Your task to perform on an android device: What's the weather going to be tomorrow? Image 0: 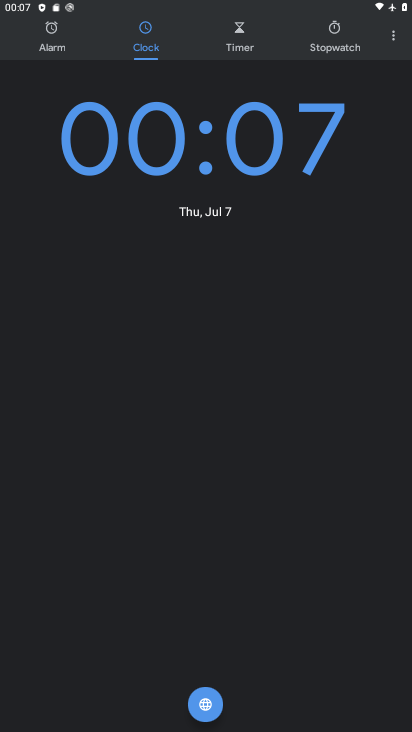
Step 0: drag from (249, 719) to (227, 193)
Your task to perform on an android device: What's the weather going to be tomorrow? Image 1: 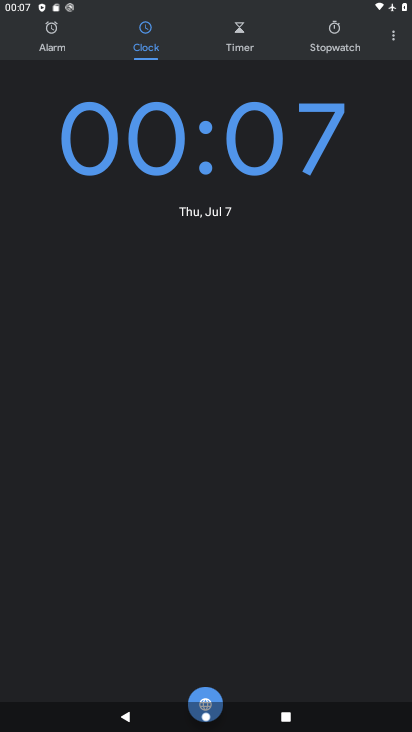
Step 1: press back button
Your task to perform on an android device: What's the weather going to be tomorrow? Image 2: 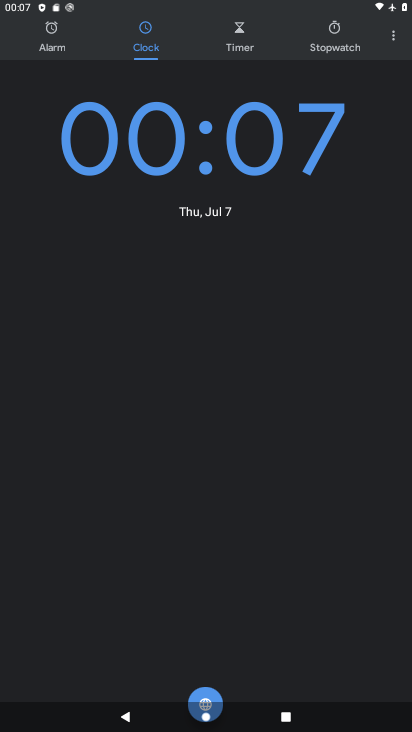
Step 2: press back button
Your task to perform on an android device: What's the weather going to be tomorrow? Image 3: 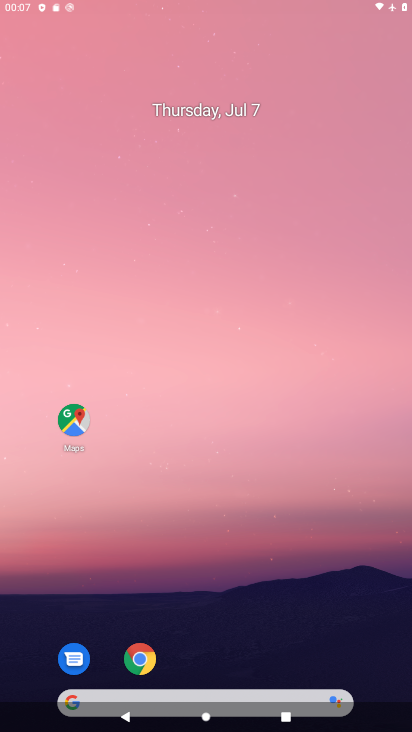
Step 3: press back button
Your task to perform on an android device: What's the weather going to be tomorrow? Image 4: 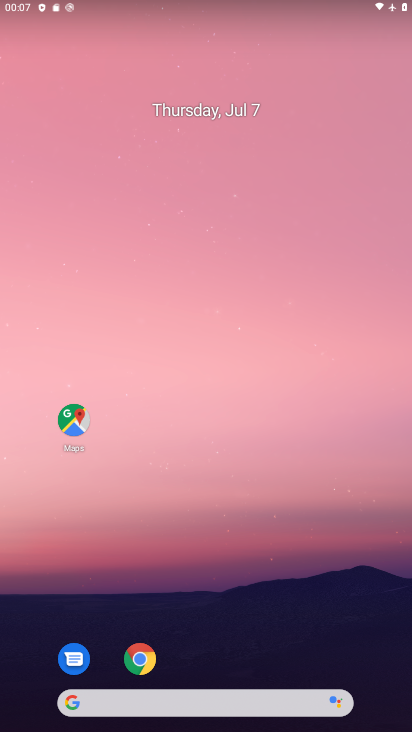
Step 4: drag from (354, 675) to (231, 198)
Your task to perform on an android device: What's the weather going to be tomorrow? Image 5: 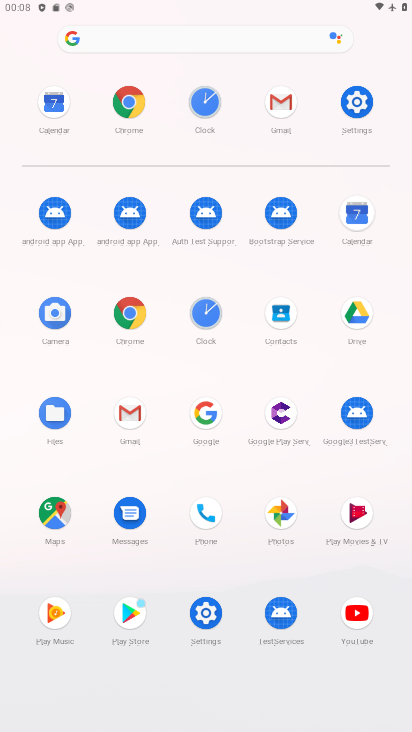
Step 5: click (99, 42)
Your task to perform on an android device: What's the weather going to be tomorrow? Image 6: 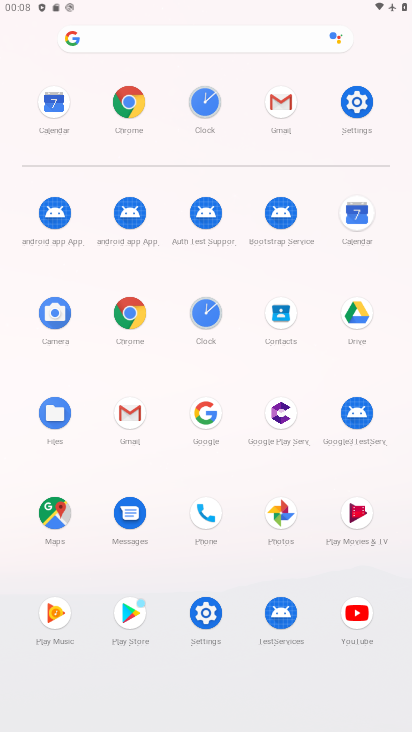
Step 6: click (114, 53)
Your task to perform on an android device: What's the weather going to be tomorrow? Image 7: 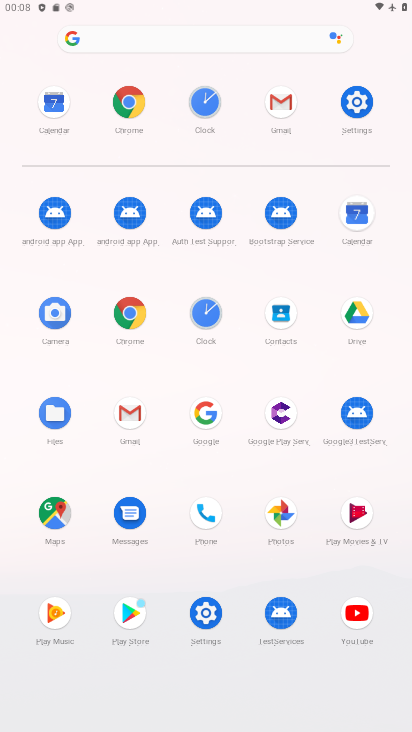
Step 7: click (116, 57)
Your task to perform on an android device: What's the weather going to be tomorrow? Image 8: 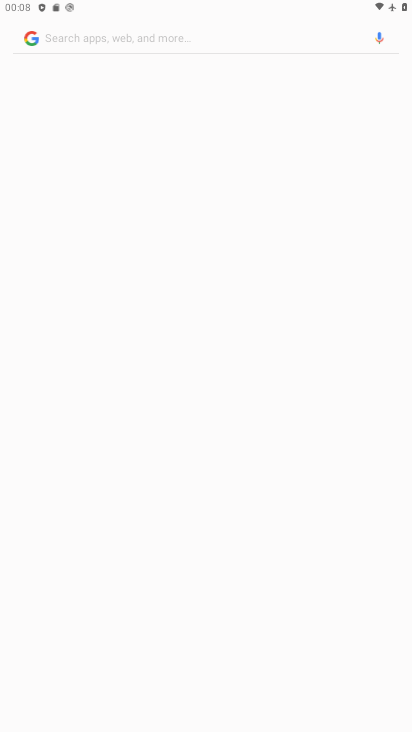
Step 8: click (116, 57)
Your task to perform on an android device: What's the weather going to be tomorrow? Image 9: 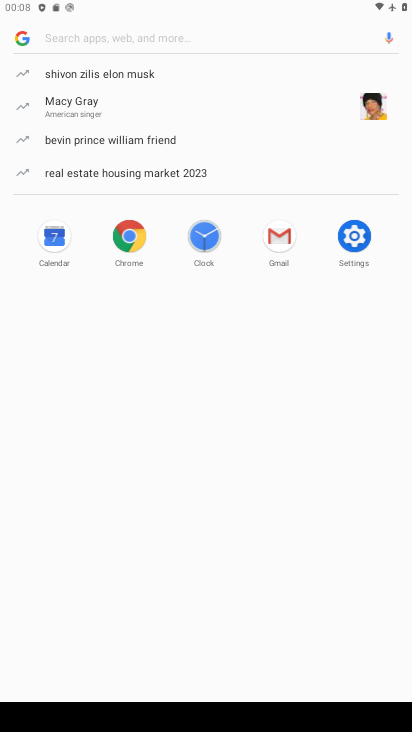
Step 9: type "tomorrow bweather"
Your task to perform on an android device: What's the weather going to be tomorrow? Image 10: 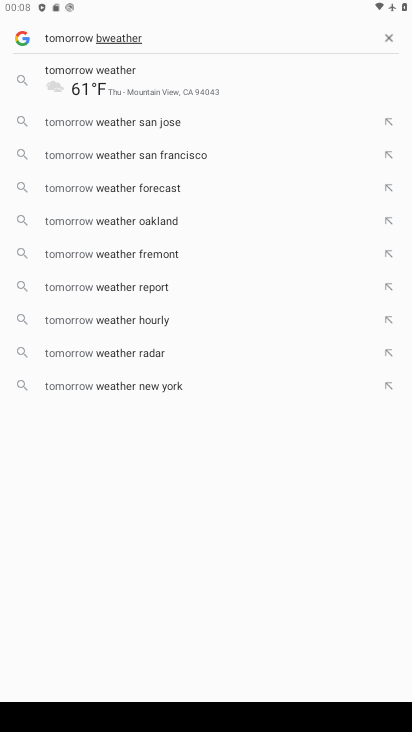
Step 10: click (154, 79)
Your task to perform on an android device: What's the weather going to be tomorrow? Image 11: 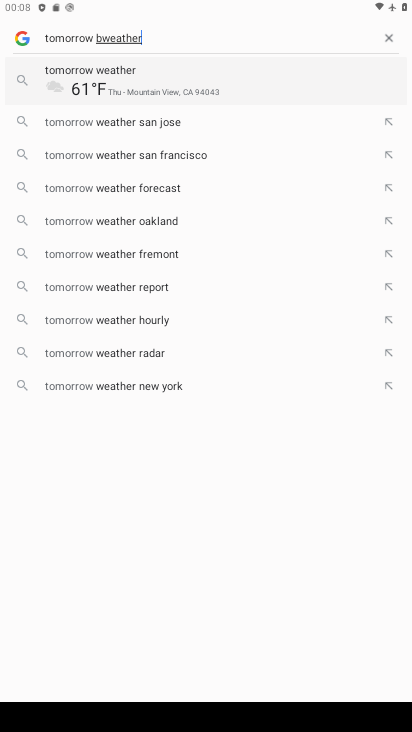
Step 11: click (154, 79)
Your task to perform on an android device: What's the weather going to be tomorrow? Image 12: 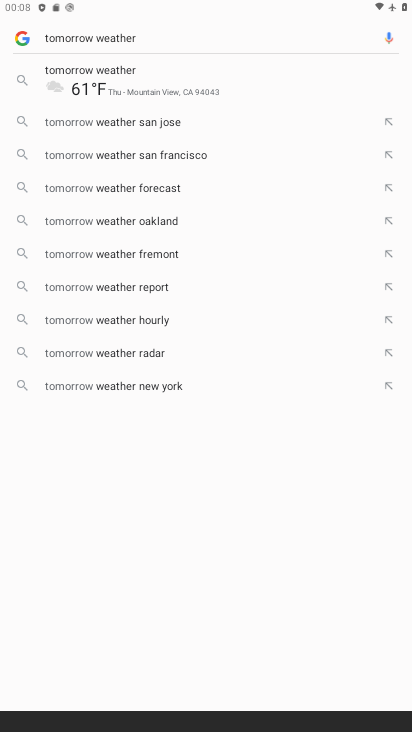
Step 12: click (162, 89)
Your task to perform on an android device: What's the weather going to be tomorrow? Image 13: 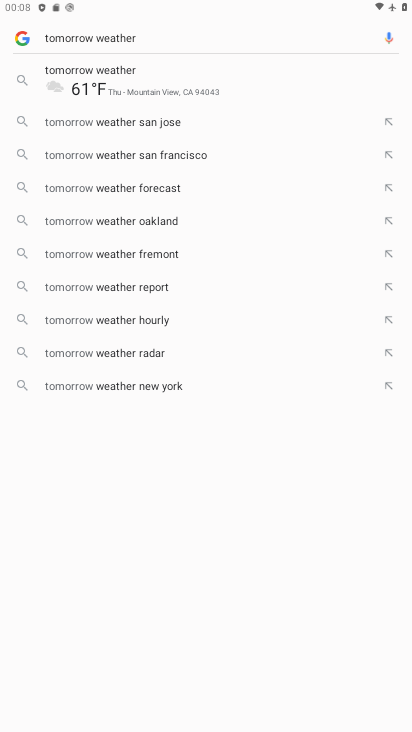
Step 13: click (164, 90)
Your task to perform on an android device: What's the weather going to be tomorrow? Image 14: 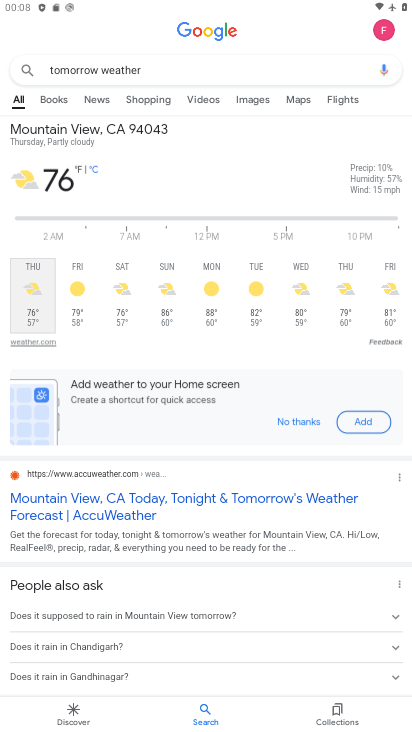
Step 14: task complete